Your task to perform on an android device: Go to Maps Image 0: 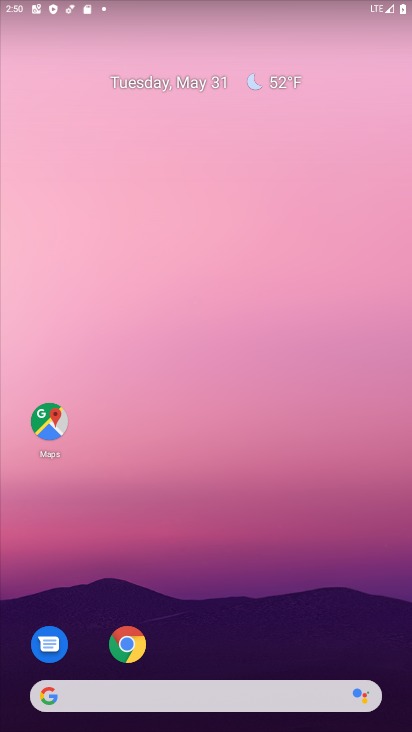
Step 0: click (46, 412)
Your task to perform on an android device: Go to Maps Image 1: 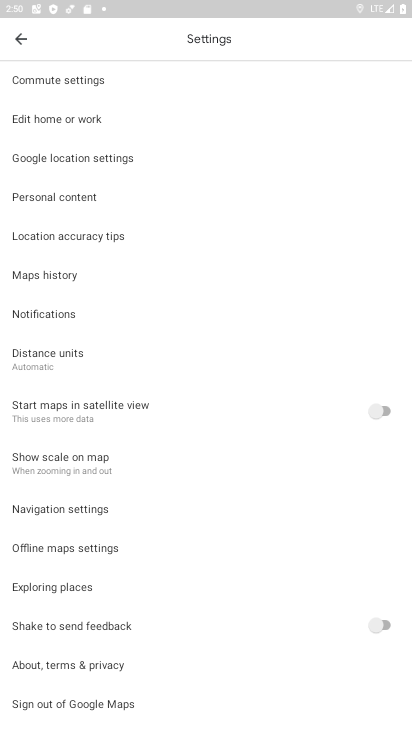
Step 1: task complete